Your task to perform on an android device: Is it going to rain tomorrow? Image 0: 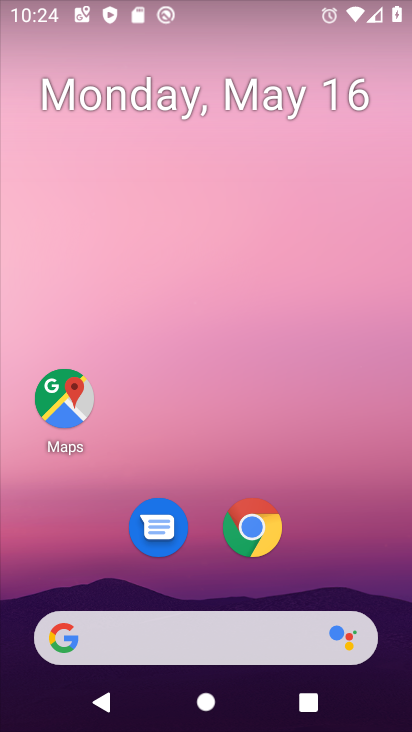
Step 0: click (135, 634)
Your task to perform on an android device: Is it going to rain tomorrow? Image 1: 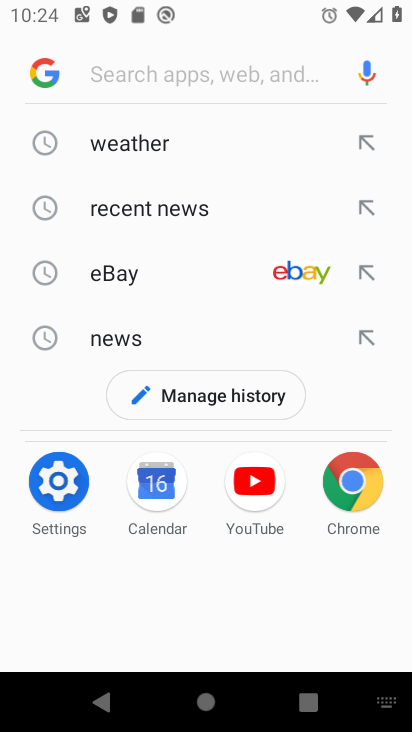
Step 1: click (125, 149)
Your task to perform on an android device: Is it going to rain tomorrow? Image 2: 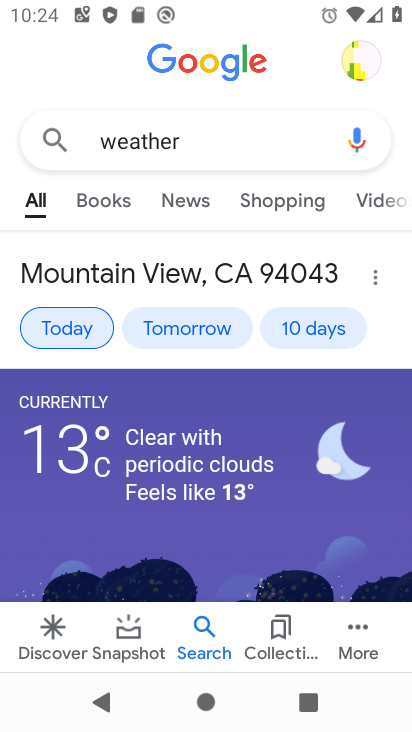
Step 2: click (184, 326)
Your task to perform on an android device: Is it going to rain tomorrow? Image 3: 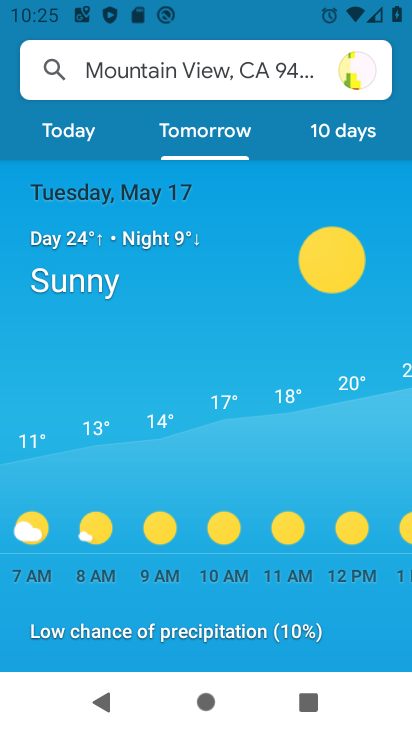
Step 3: task complete